Your task to perform on an android device: What's on my calendar today? Image 0: 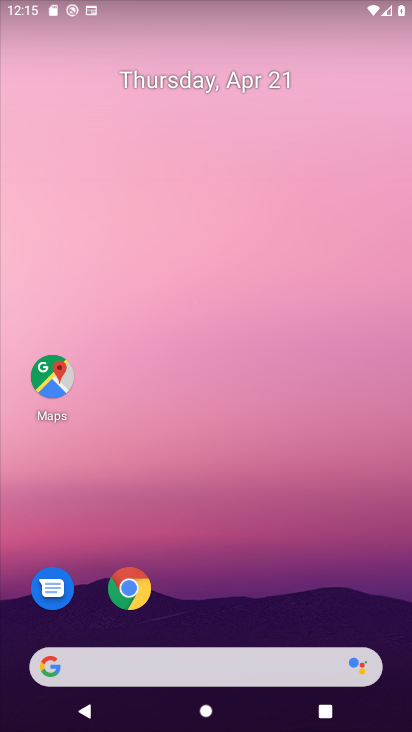
Step 0: drag from (211, 620) to (233, 73)
Your task to perform on an android device: What's on my calendar today? Image 1: 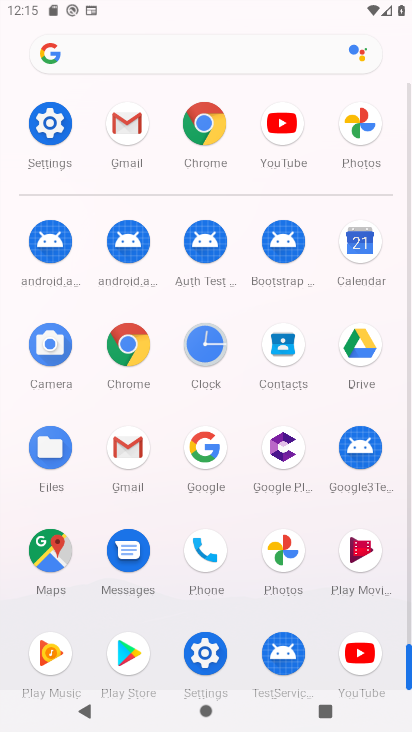
Step 1: click (360, 238)
Your task to perform on an android device: What's on my calendar today? Image 2: 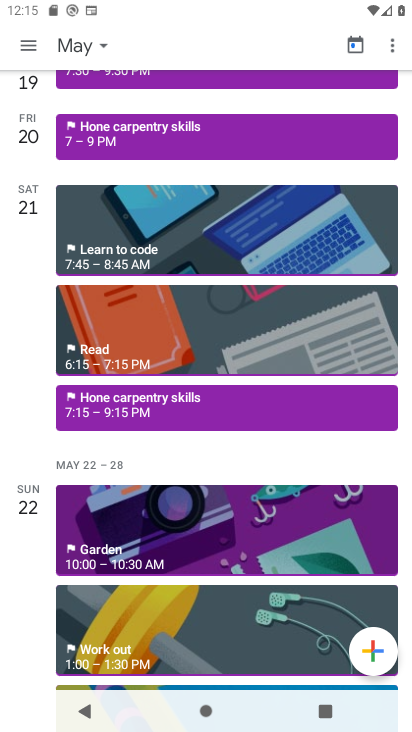
Step 2: click (29, 50)
Your task to perform on an android device: What's on my calendar today? Image 3: 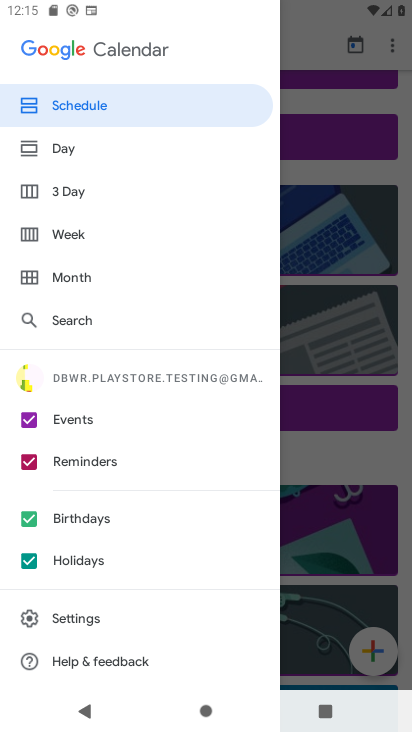
Step 3: click (49, 149)
Your task to perform on an android device: What's on my calendar today? Image 4: 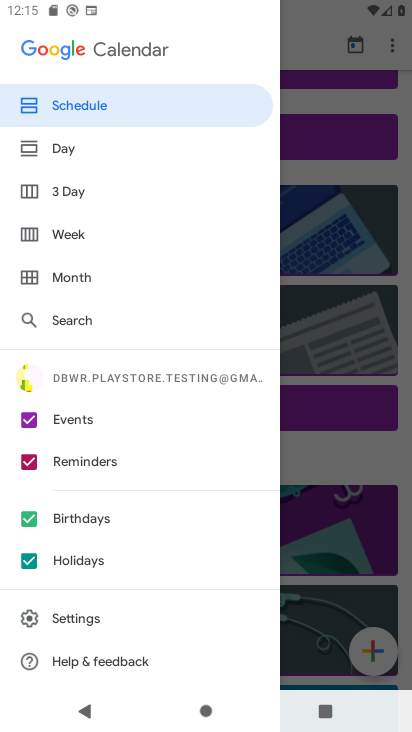
Step 4: click (48, 147)
Your task to perform on an android device: What's on my calendar today? Image 5: 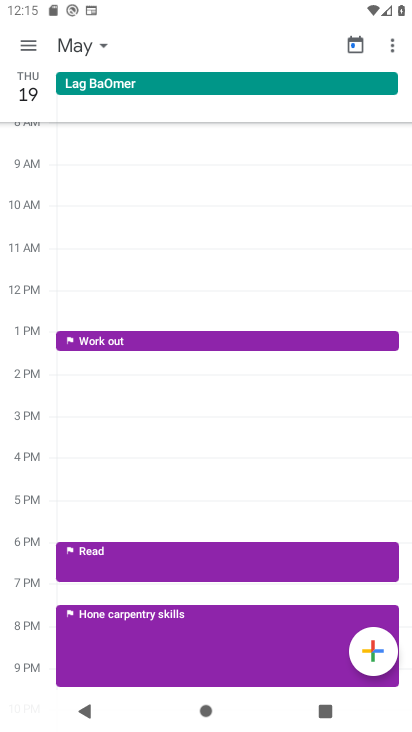
Step 5: drag from (49, 454) to (59, 167)
Your task to perform on an android device: What's on my calendar today? Image 6: 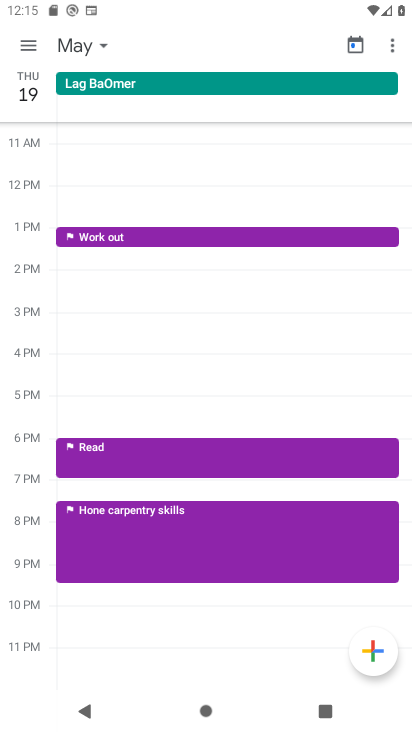
Step 6: click (97, 42)
Your task to perform on an android device: What's on my calendar today? Image 7: 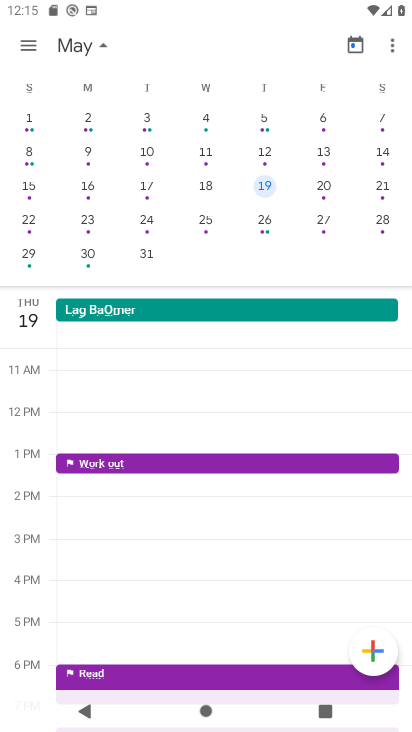
Step 7: drag from (47, 182) to (403, 186)
Your task to perform on an android device: What's on my calendar today? Image 8: 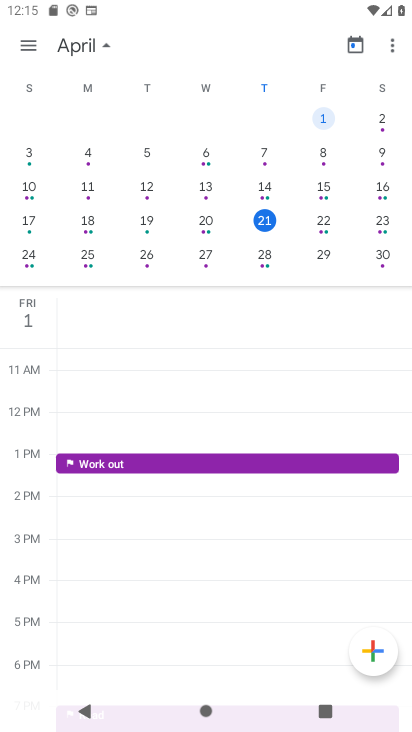
Step 8: click (267, 216)
Your task to perform on an android device: What's on my calendar today? Image 9: 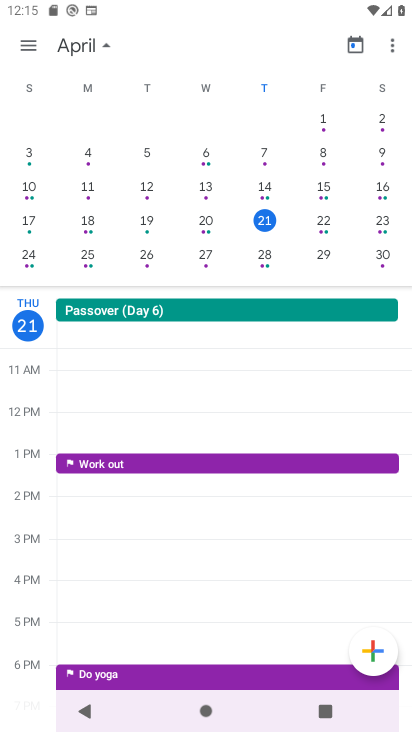
Step 9: task complete